Your task to perform on an android device: What's the weather going to be tomorrow? Image 0: 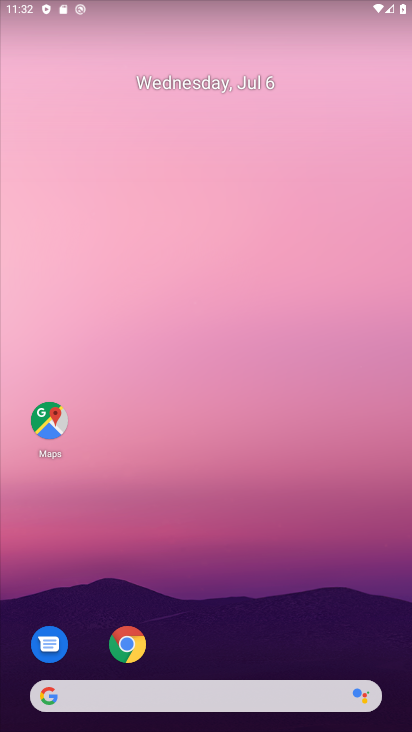
Step 0: drag from (209, 698) to (153, 314)
Your task to perform on an android device: What's the weather going to be tomorrow? Image 1: 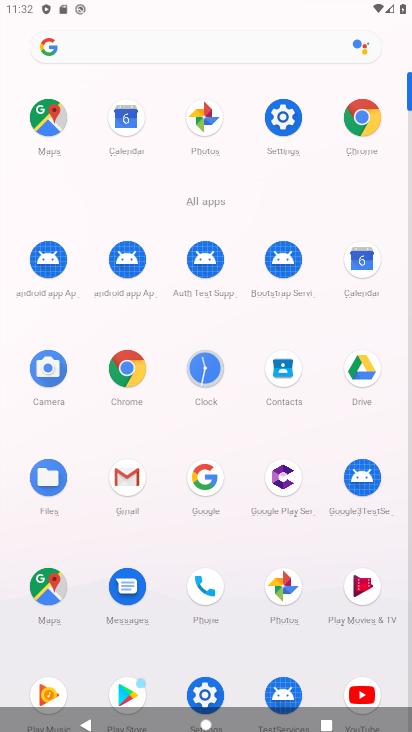
Step 1: click (347, 130)
Your task to perform on an android device: What's the weather going to be tomorrow? Image 2: 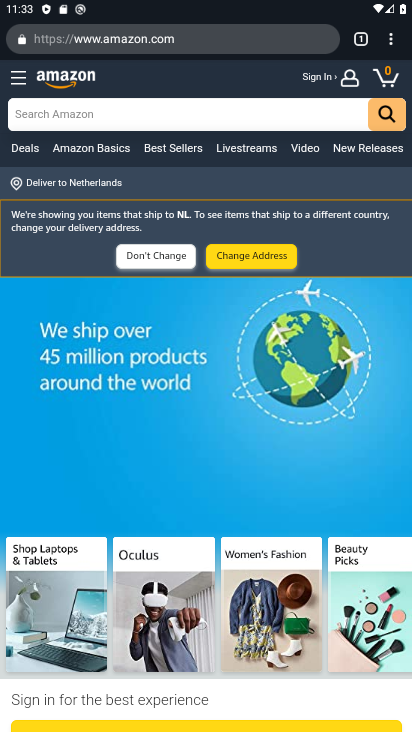
Step 2: click (198, 35)
Your task to perform on an android device: What's the weather going to be tomorrow? Image 3: 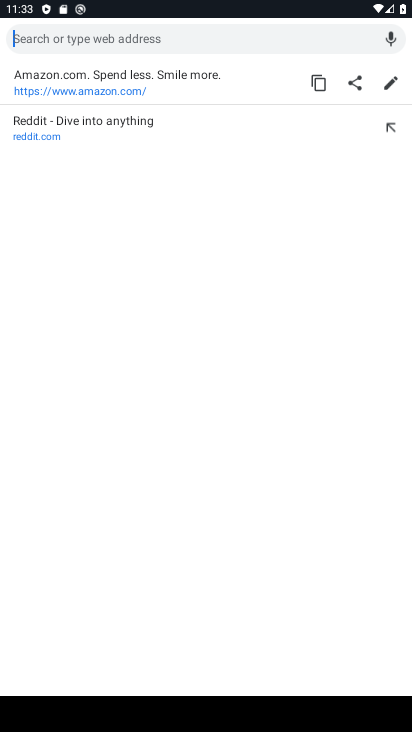
Step 3: type "weather tomorrow"
Your task to perform on an android device: What's the weather going to be tomorrow? Image 4: 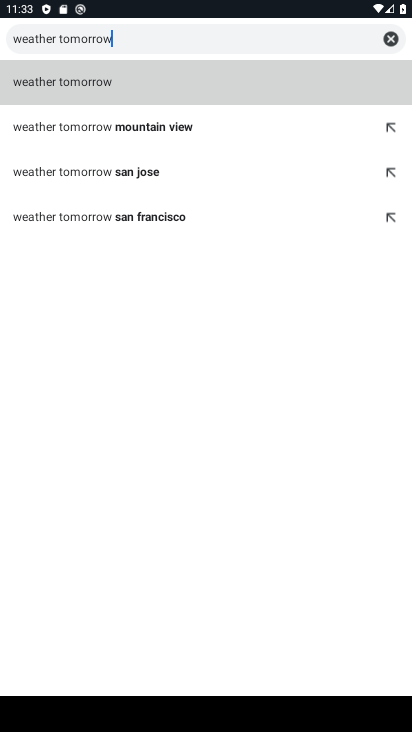
Step 4: click (114, 90)
Your task to perform on an android device: What's the weather going to be tomorrow? Image 5: 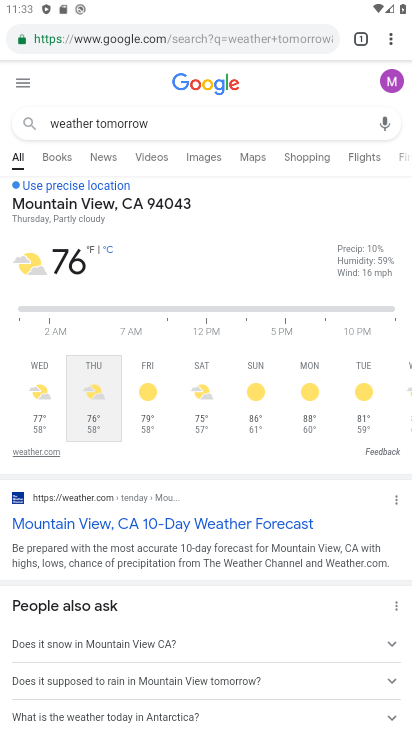
Step 5: task complete